Your task to perform on an android device: turn notification dots on Image 0: 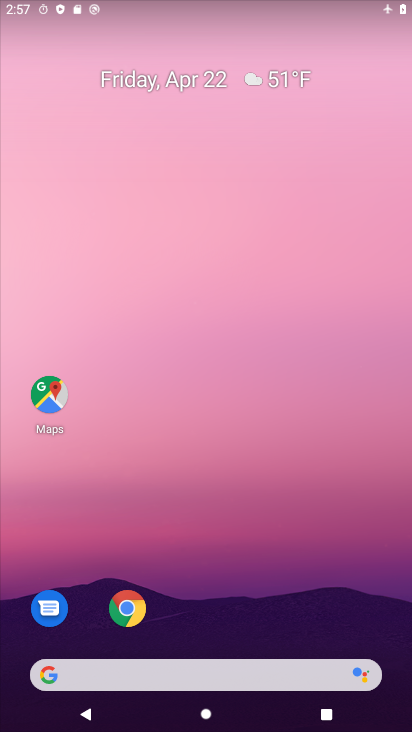
Step 0: drag from (251, 626) to (203, 70)
Your task to perform on an android device: turn notification dots on Image 1: 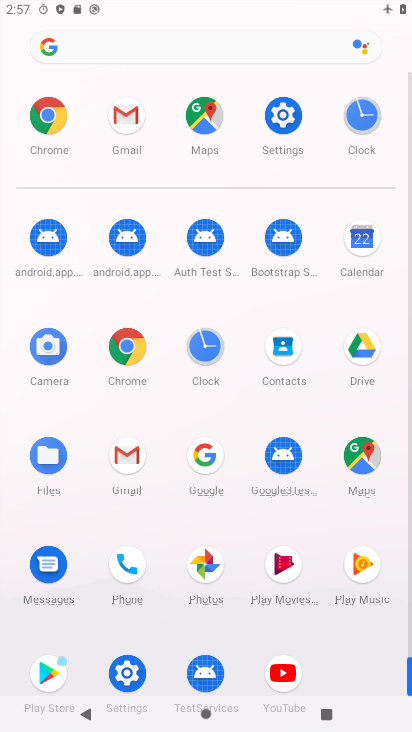
Step 1: click (279, 116)
Your task to perform on an android device: turn notification dots on Image 2: 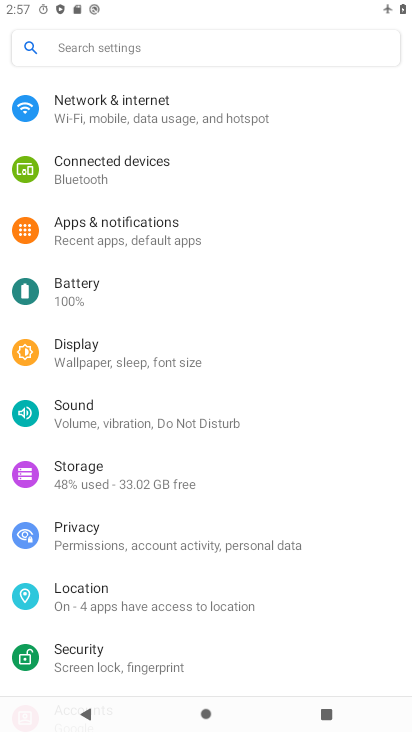
Step 2: click (147, 237)
Your task to perform on an android device: turn notification dots on Image 3: 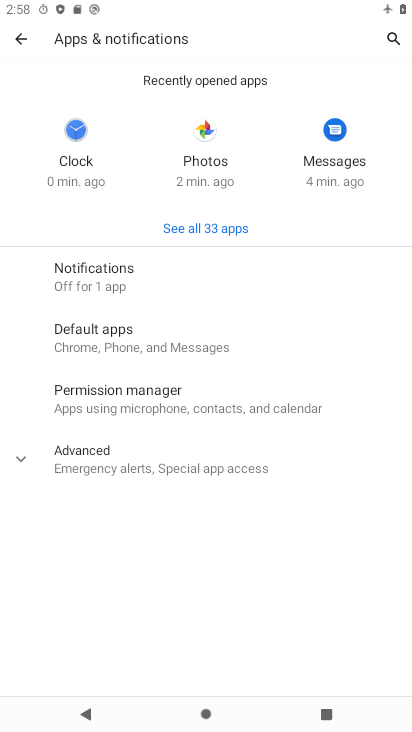
Step 3: click (146, 282)
Your task to perform on an android device: turn notification dots on Image 4: 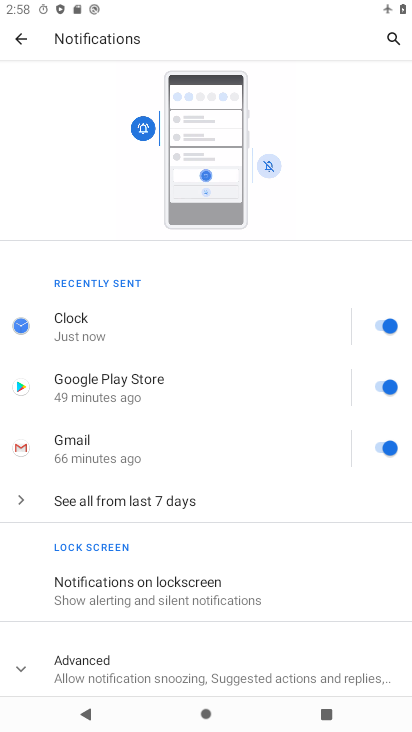
Step 4: drag from (233, 631) to (288, 263)
Your task to perform on an android device: turn notification dots on Image 5: 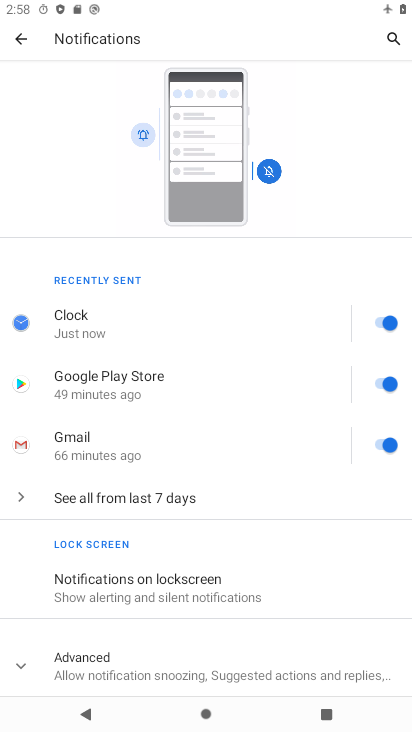
Step 5: click (269, 678)
Your task to perform on an android device: turn notification dots on Image 6: 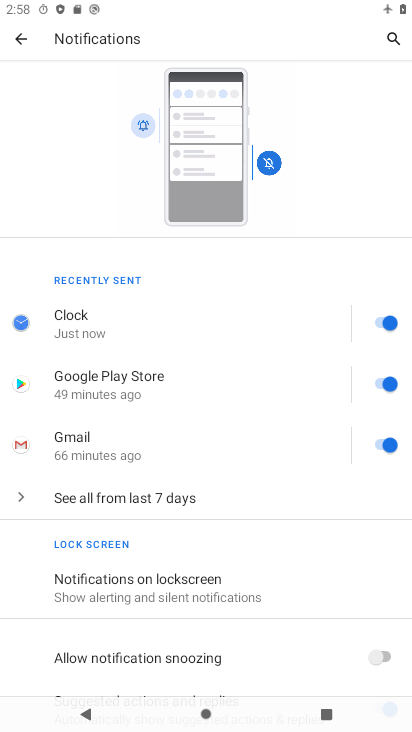
Step 6: task complete